Your task to perform on an android device: turn on priority inbox in the gmail app Image 0: 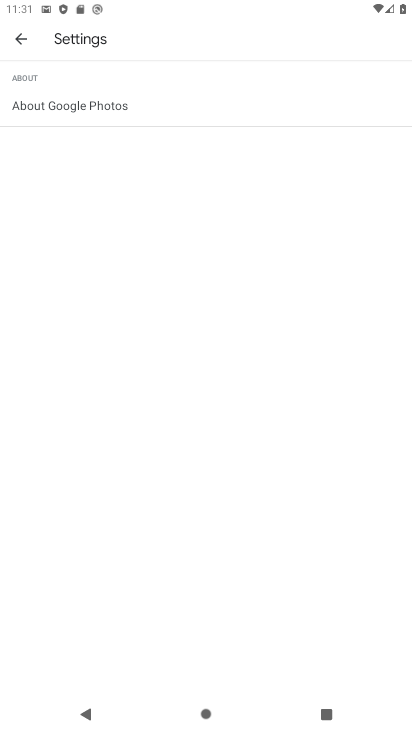
Step 0: click (23, 44)
Your task to perform on an android device: turn on priority inbox in the gmail app Image 1: 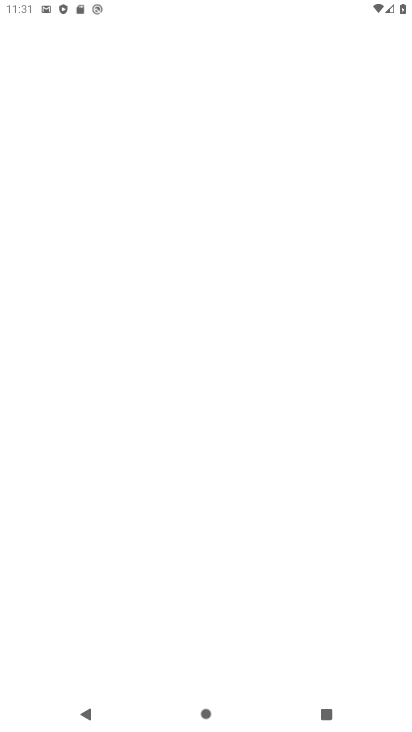
Step 1: press home button
Your task to perform on an android device: turn on priority inbox in the gmail app Image 2: 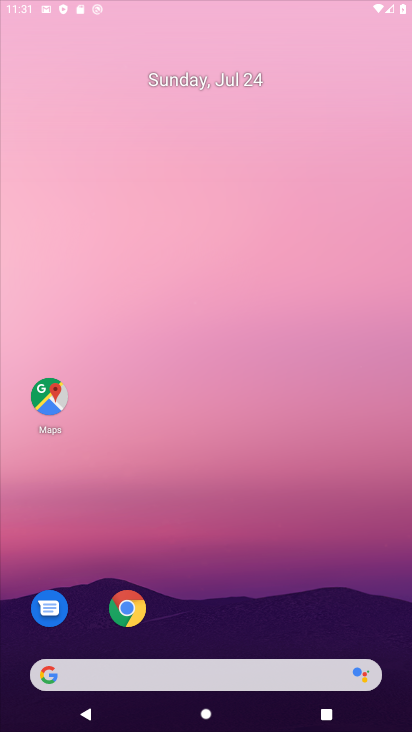
Step 2: drag from (251, 321) to (268, 184)
Your task to perform on an android device: turn on priority inbox in the gmail app Image 3: 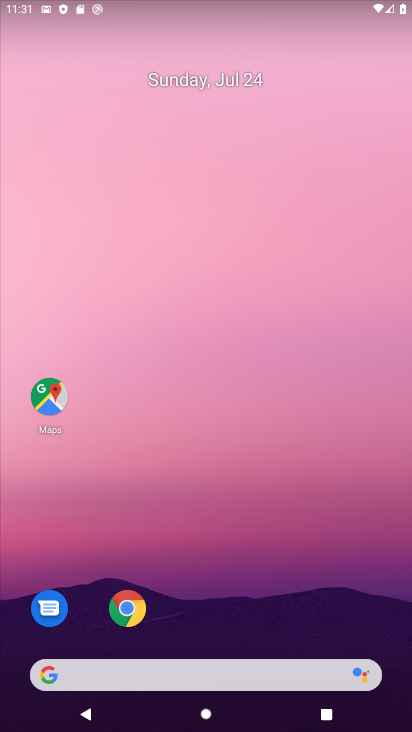
Step 3: drag from (242, 654) to (300, 141)
Your task to perform on an android device: turn on priority inbox in the gmail app Image 4: 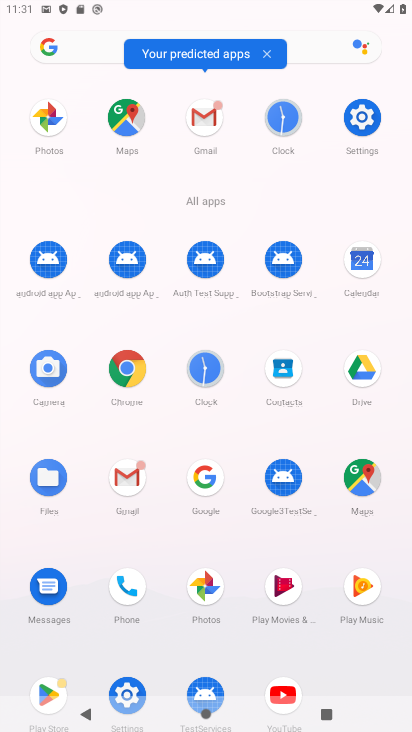
Step 4: click (211, 136)
Your task to perform on an android device: turn on priority inbox in the gmail app Image 5: 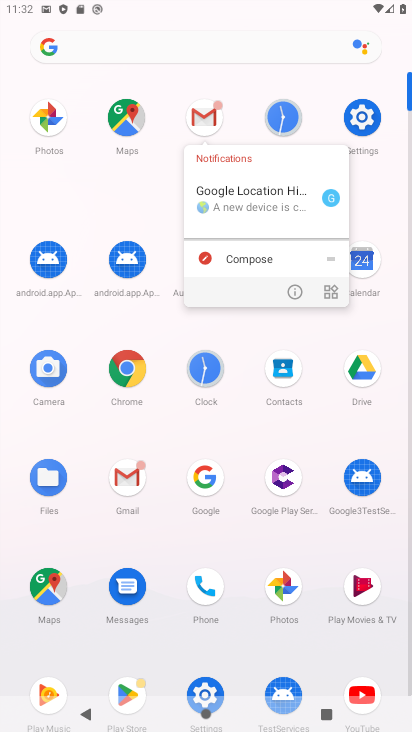
Step 5: click (197, 125)
Your task to perform on an android device: turn on priority inbox in the gmail app Image 6: 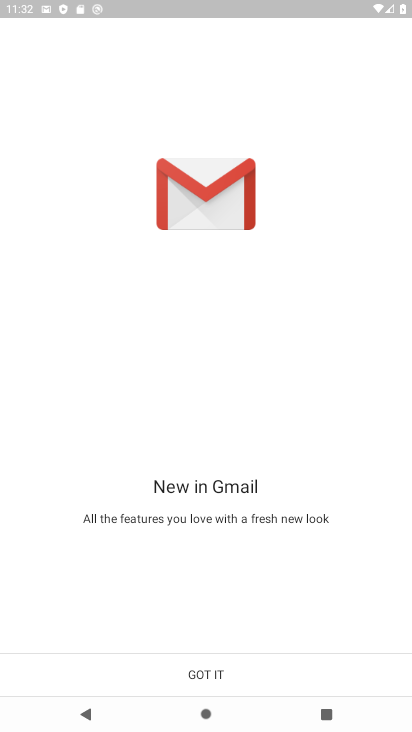
Step 6: click (203, 680)
Your task to perform on an android device: turn on priority inbox in the gmail app Image 7: 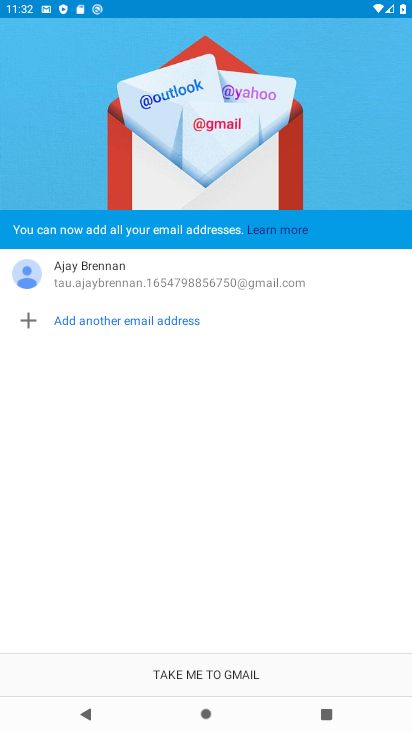
Step 7: click (214, 671)
Your task to perform on an android device: turn on priority inbox in the gmail app Image 8: 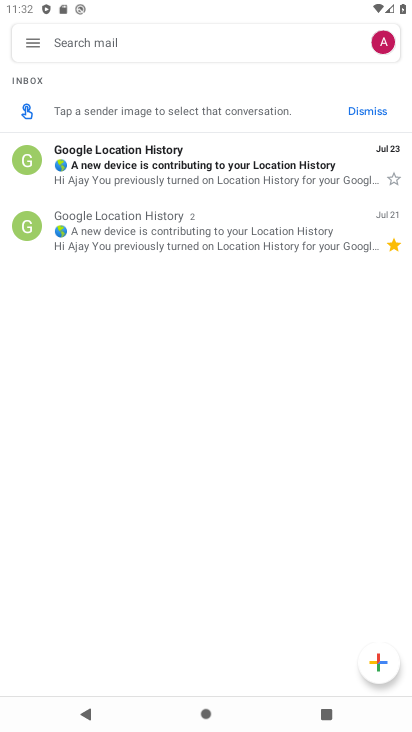
Step 8: click (28, 31)
Your task to perform on an android device: turn on priority inbox in the gmail app Image 9: 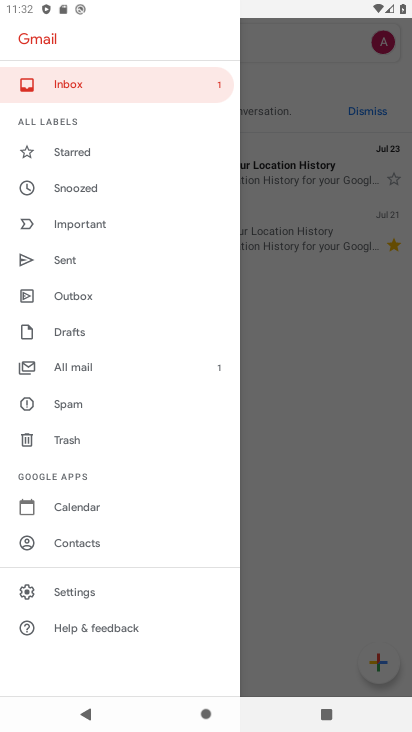
Step 9: click (82, 593)
Your task to perform on an android device: turn on priority inbox in the gmail app Image 10: 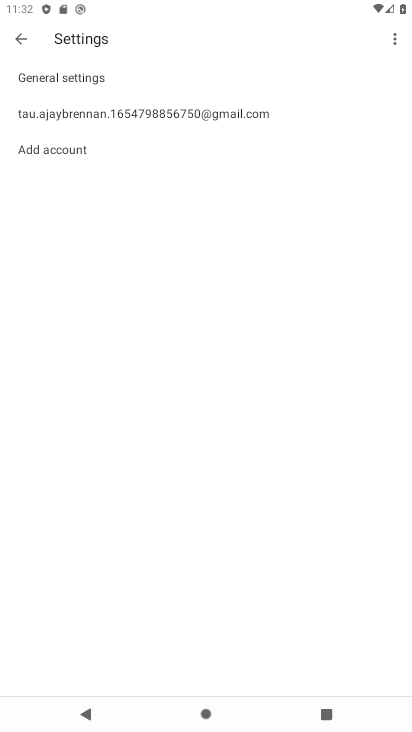
Step 10: click (90, 116)
Your task to perform on an android device: turn on priority inbox in the gmail app Image 11: 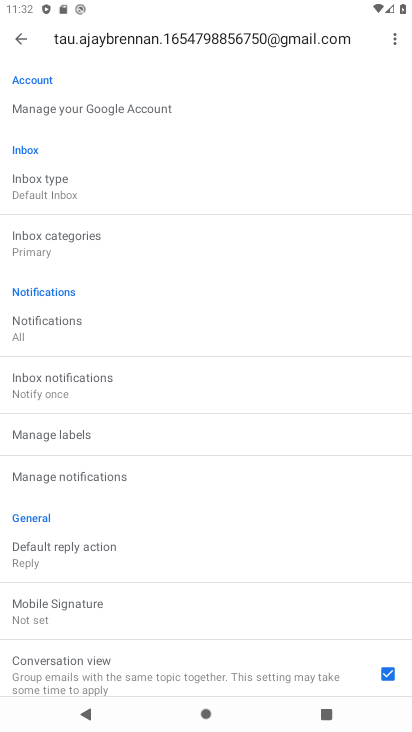
Step 11: click (53, 244)
Your task to perform on an android device: turn on priority inbox in the gmail app Image 12: 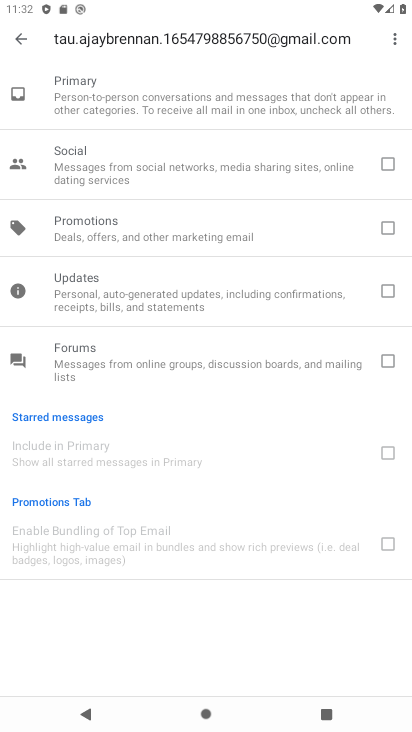
Step 12: click (21, 49)
Your task to perform on an android device: turn on priority inbox in the gmail app Image 13: 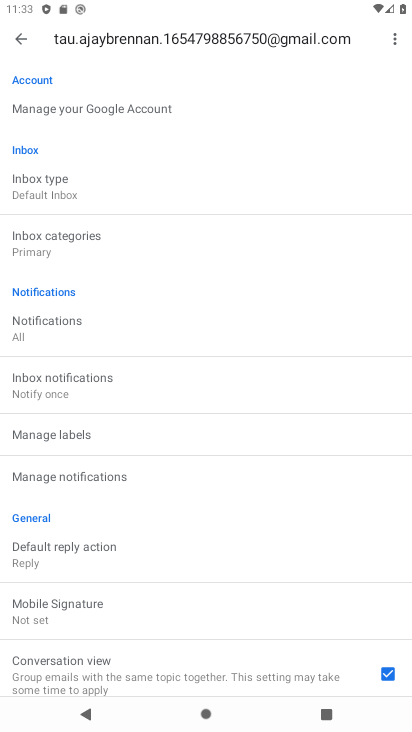
Step 13: click (65, 181)
Your task to perform on an android device: turn on priority inbox in the gmail app Image 14: 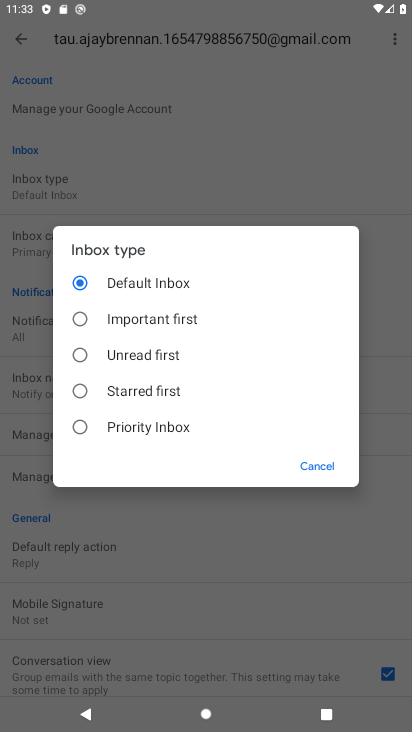
Step 14: click (120, 432)
Your task to perform on an android device: turn on priority inbox in the gmail app Image 15: 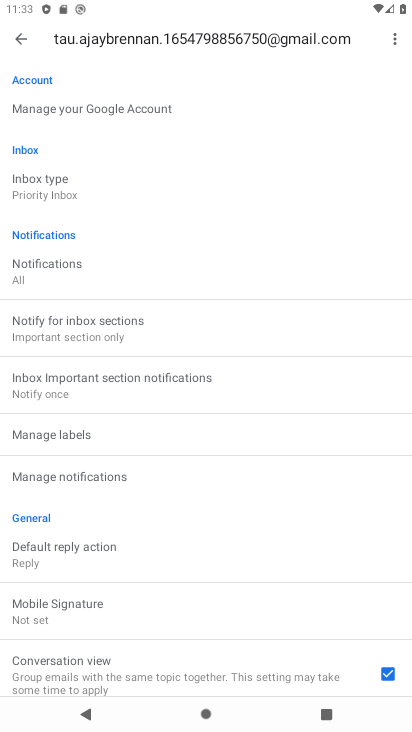
Step 15: task complete